Your task to perform on an android device: turn on the 12-hour format for clock Image 0: 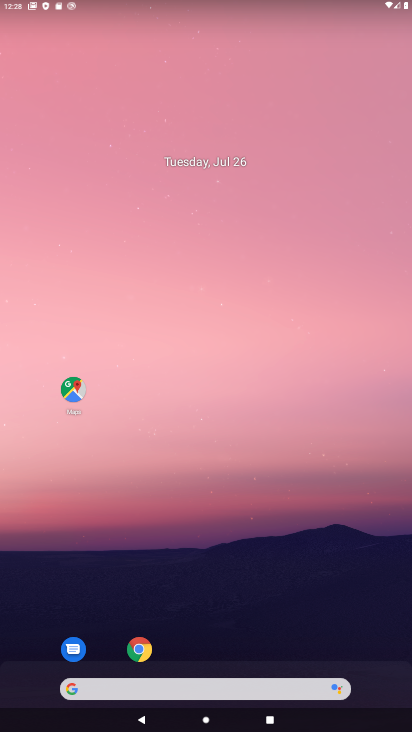
Step 0: drag from (253, 476) to (402, 399)
Your task to perform on an android device: turn on the 12-hour format for clock Image 1: 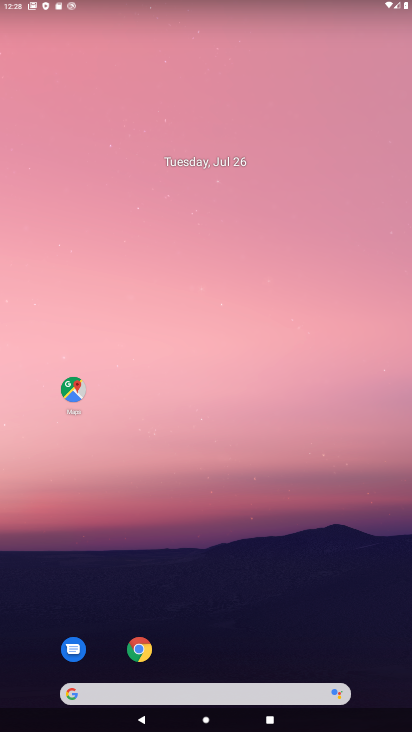
Step 1: drag from (182, 686) to (206, 234)
Your task to perform on an android device: turn on the 12-hour format for clock Image 2: 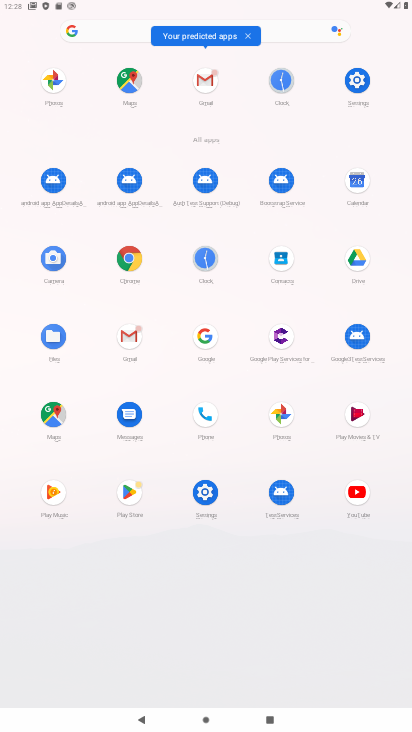
Step 2: click (171, 7)
Your task to perform on an android device: turn on the 12-hour format for clock Image 3: 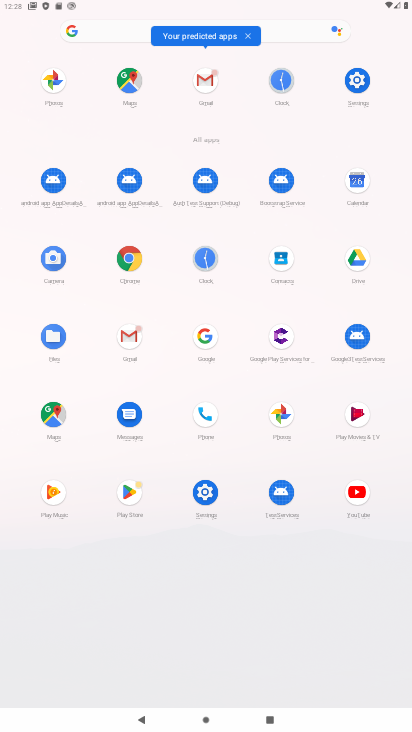
Step 3: drag from (262, 421) to (213, 77)
Your task to perform on an android device: turn on the 12-hour format for clock Image 4: 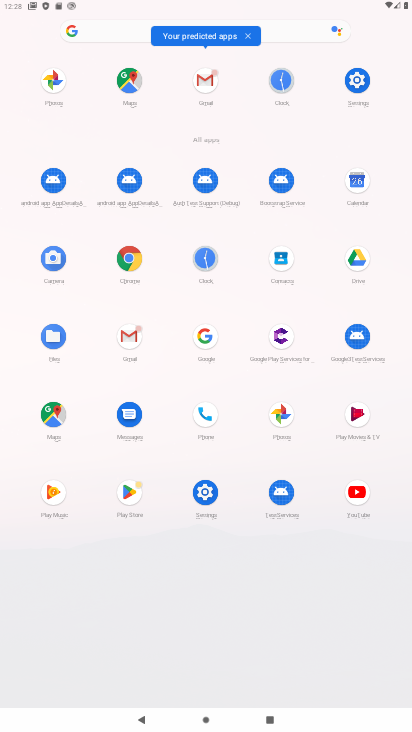
Step 4: click (168, 88)
Your task to perform on an android device: turn on the 12-hour format for clock Image 5: 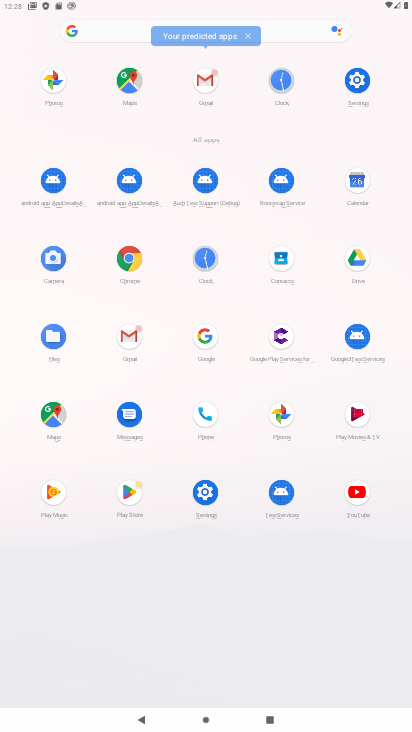
Step 5: click (162, 155)
Your task to perform on an android device: turn on the 12-hour format for clock Image 6: 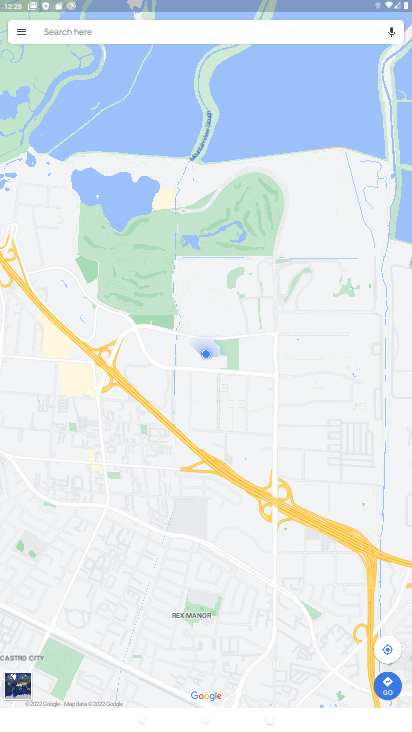
Step 6: press back button
Your task to perform on an android device: turn on the 12-hour format for clock Image 7: 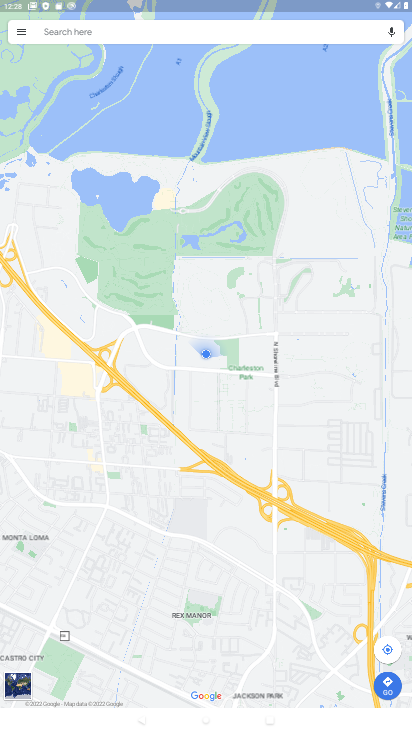
Step 7: press back button
Your task to perform on an android device: turn on the 12-hour format for clock Image 8: 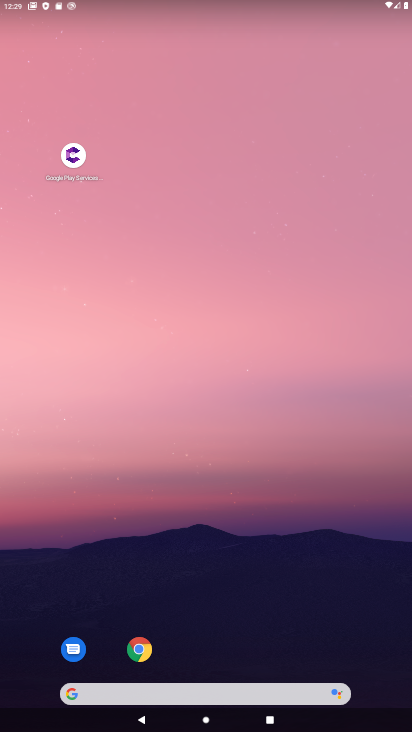
Step 8: drag from (239, 658) to (148, 80)
Your task to perform on an android device: turn on the 12-hour format for clock Image 9: 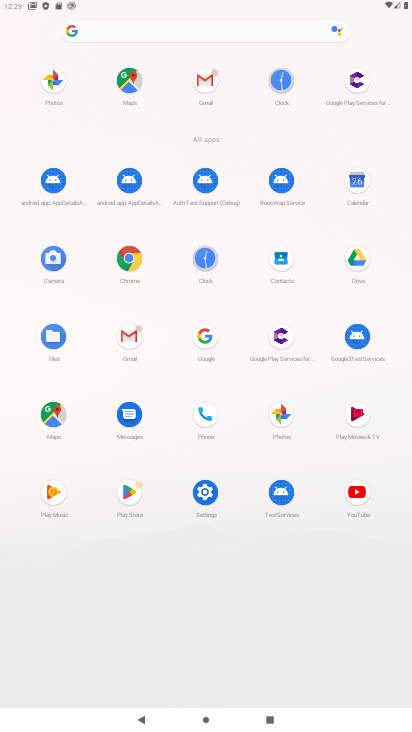
Step 9: drag from (241, 205) to (229, 120)
Your task to perform on an android device: turn on the 12-hour format for clock Image 10: 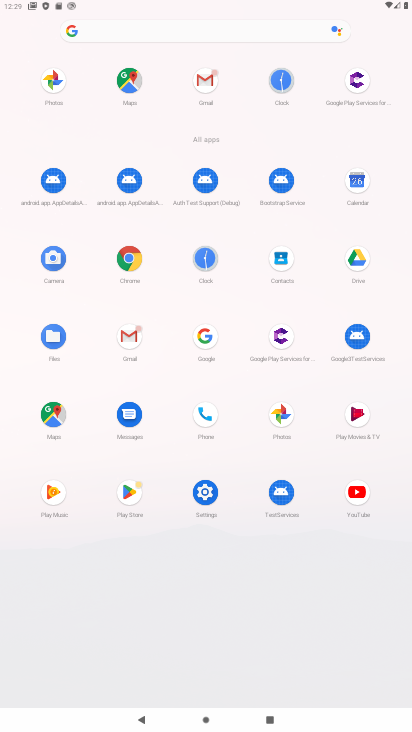
Step 10: click (200, 245)
Your task to perform on an android device: turn on the 12-hour format for clock Image 11: 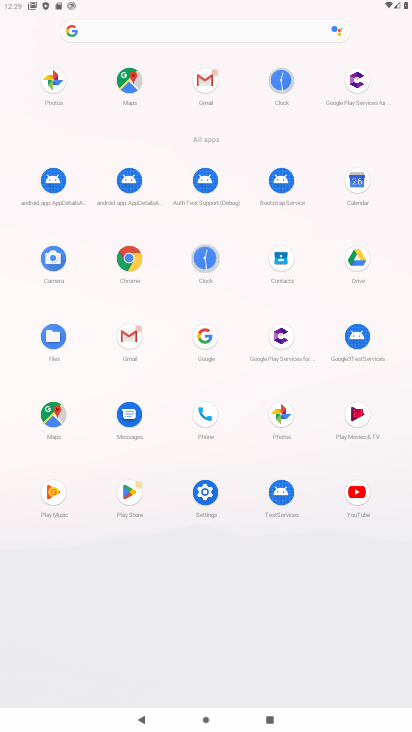
Step 11: click (201, 244)
Your task to perform on an android device: turn on the 12-hour format for clock Image 12: 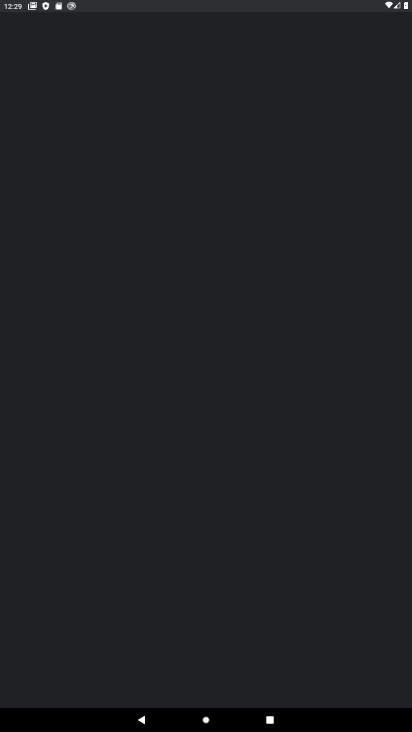
Step 12: click (199, 244)
Your task to perform on an android device: turn on the 12-hour format for clock Image 13: 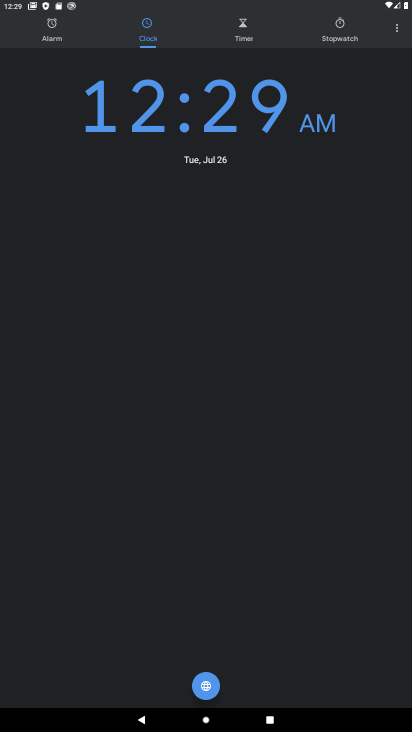
Step 13: click (399, 33)
Your task to perform on an android device: turn on the 12-hour format for clock Image 14: 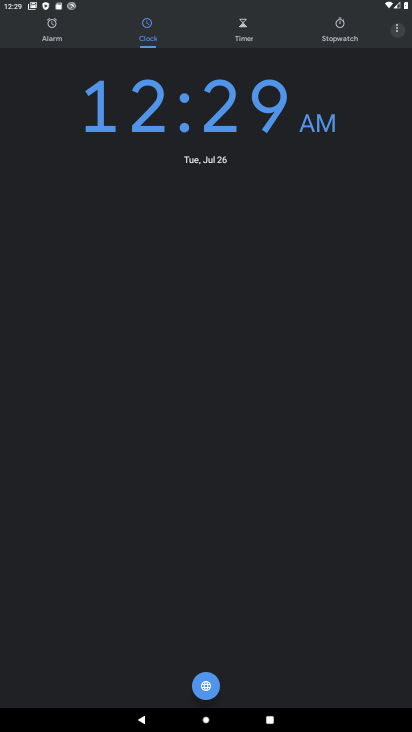
Step 14: click (399, 32)
Your task to perform on an android device: turn on the 12-hour format for clock Image 15: 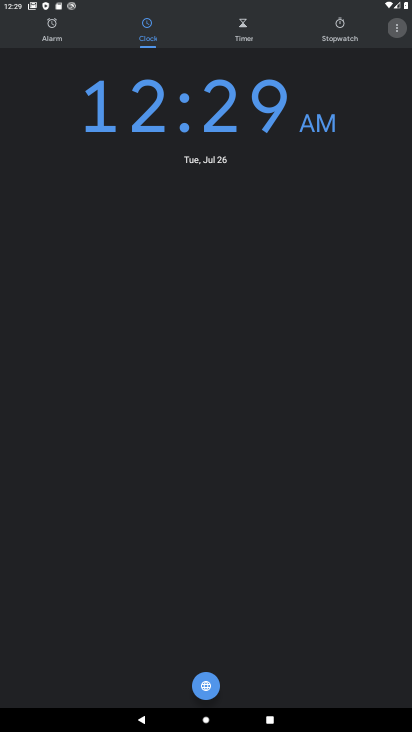
Step 15: click (399, 32)
Your task to perform on an android device: turn on the 12-hour format for clock Image 16: 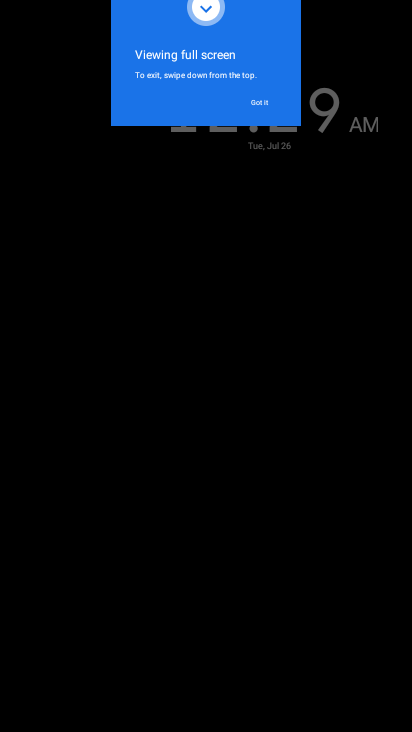
Step 16: press back button
Your task to perform on an android device: turn on the 12-hour format for clock Image 17: 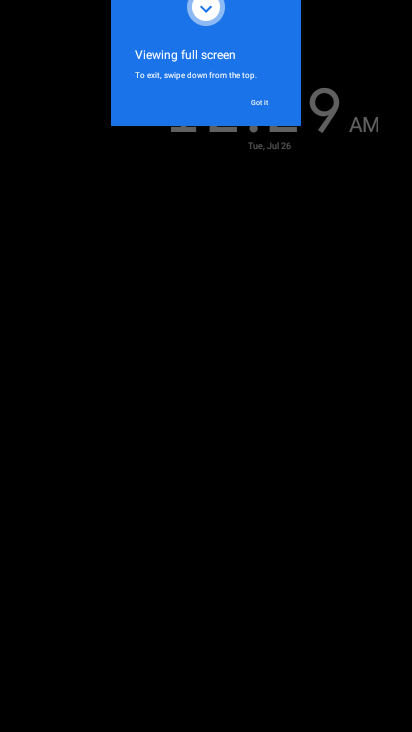
Step 17: press back button
Your task to perform on an android device: turn on the 12-hour format for clock Image 18: 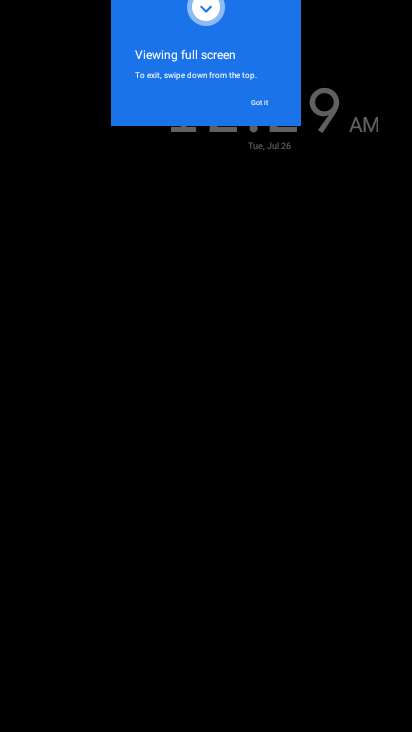
Step 18: click (253, 110)
Your task to perform on an android device: turn on the 12-hour format for clock Image 19: 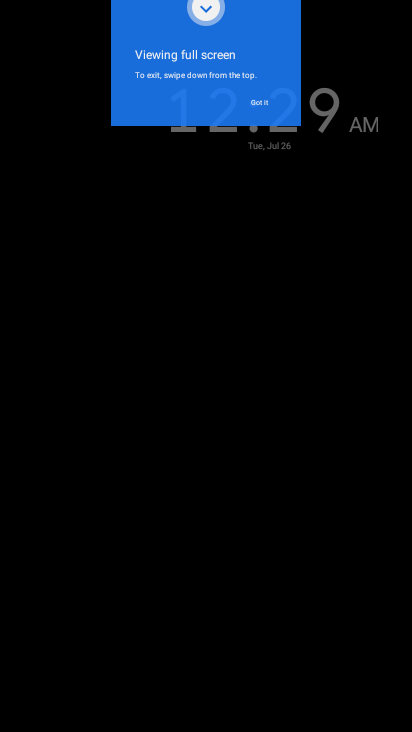
Step 19: click (253, 110)
Your task to perform on an android device: turn on the 12-hour format for clock Image 20: 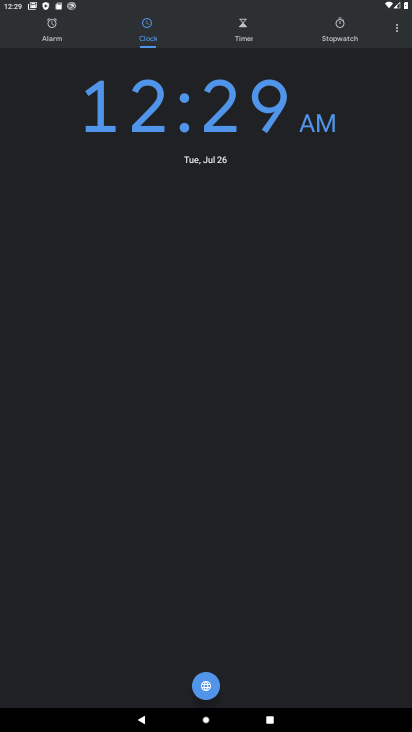
Step 20: click (392, 27)
Your task to perform on an android device: turn on the 12-hour format for clock Image 21: 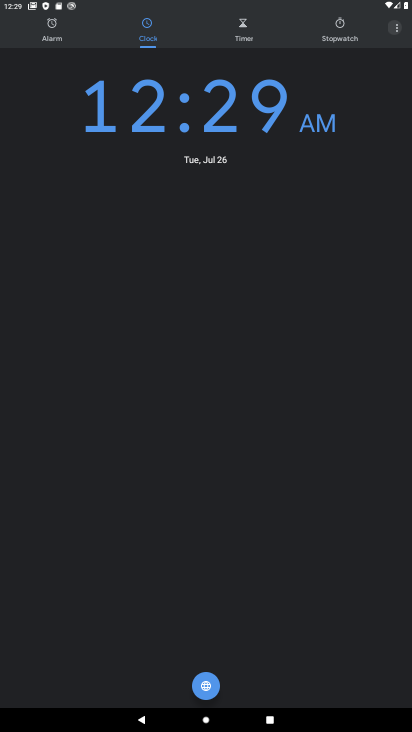
Step 21: click (393, 26)
Your task to perform on an android device: turn on the 12-hour format for clock Image 22: 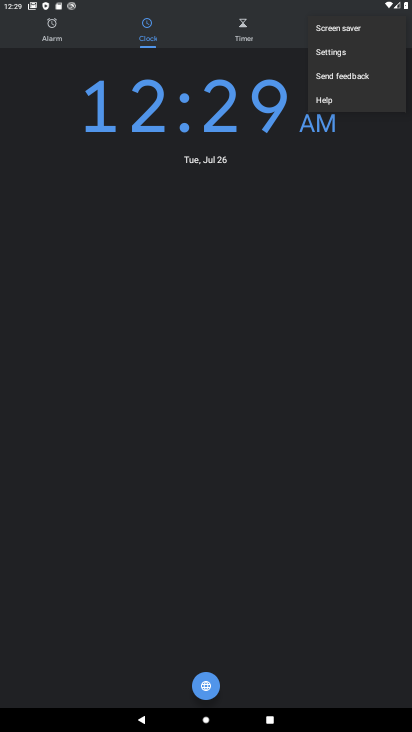
Step 22: click (345, 47)
Your task to perform on an android device: turn on the 12-hour format for clock Image 23: 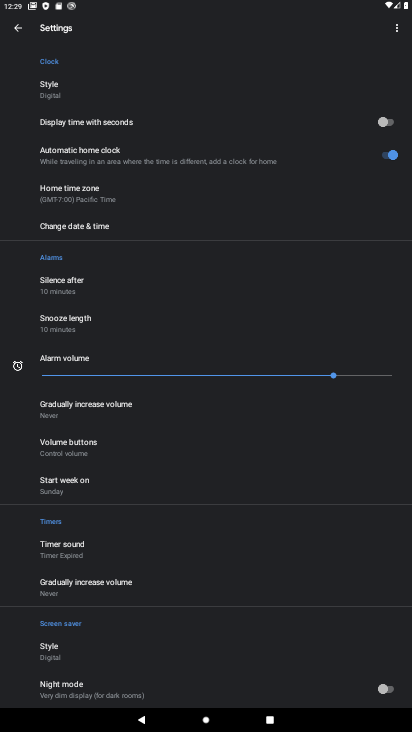
Step 23: click (60, 232)
Your task to perform on an android device: turn on the 12-hour format for clock Image 24: 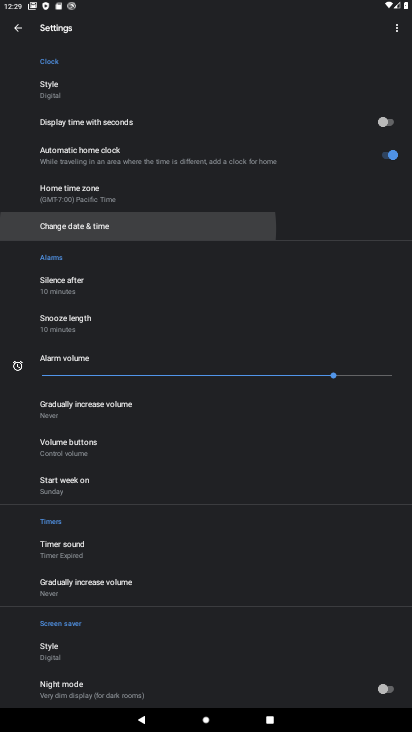
Step 24: click (59, 231)
Your task to perform on an android device: turn on the 12-hour format for clock Image 25: 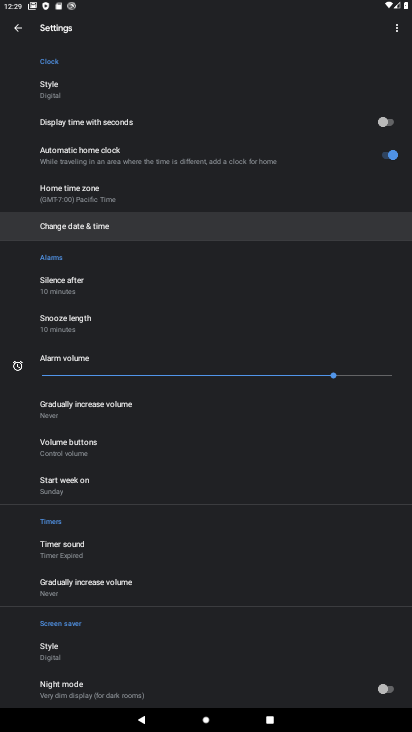
Step 25: click (59, 231)
Your task to perform on an android device: turn on the 12-hour format for clock Image 26: 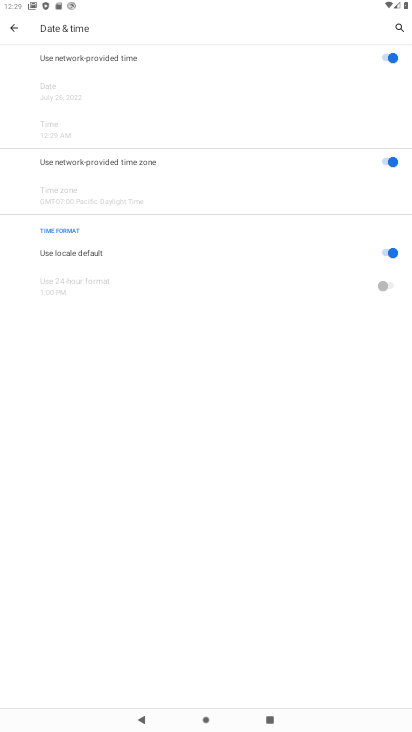
Step 26: task complete